Your task to perform on an android device: move an email to a new category in the gmail app Image 0: 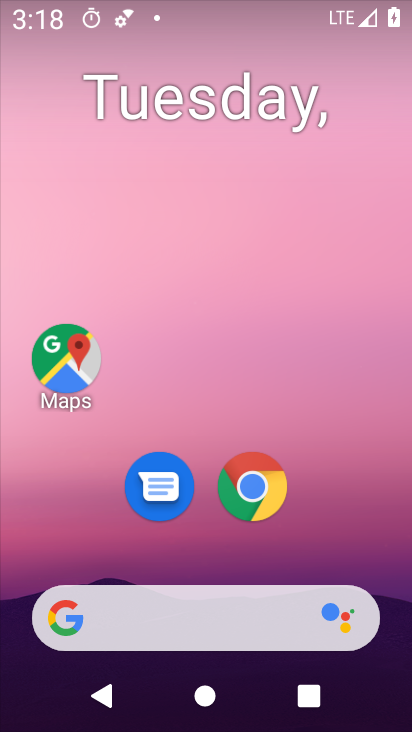
Step 0: drag from (362, 498) to (354, 91)
Your task to perform on an android device: move an email to a new category in the gmail app Image 1: 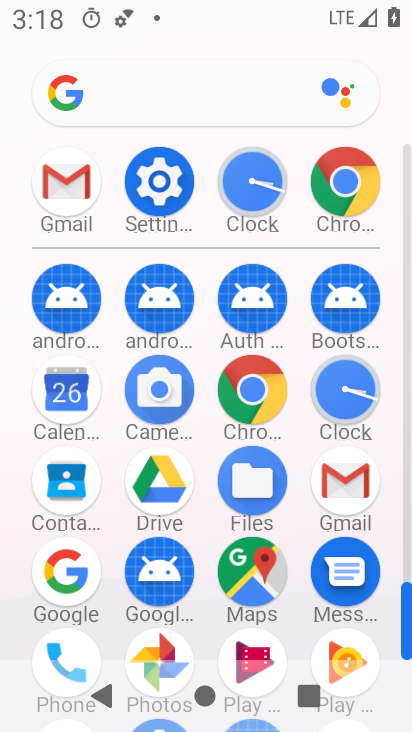
Step 1: click (334, 475)
Your task to perform on an android device: move an email to a new category in the gmail app Image 2: 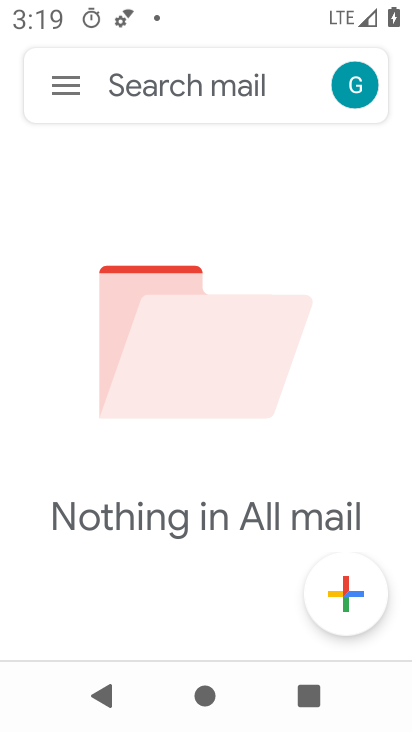
Step 2: task complete